Your task to perform on an android device: Open sound settings Image 0: 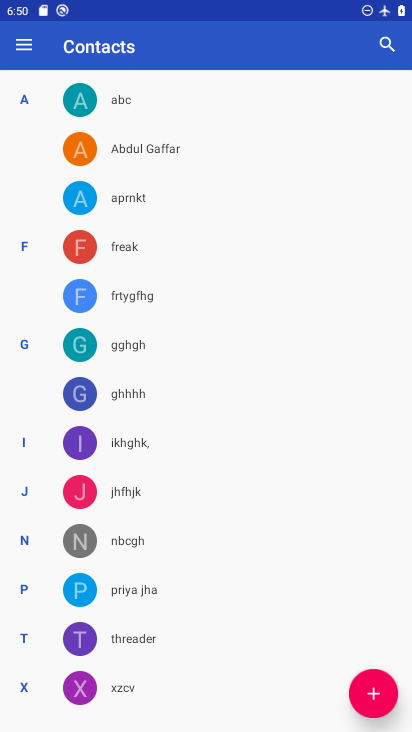
Step 0: press home button
Your task to perform on an android device: Open sound settings Image 1: 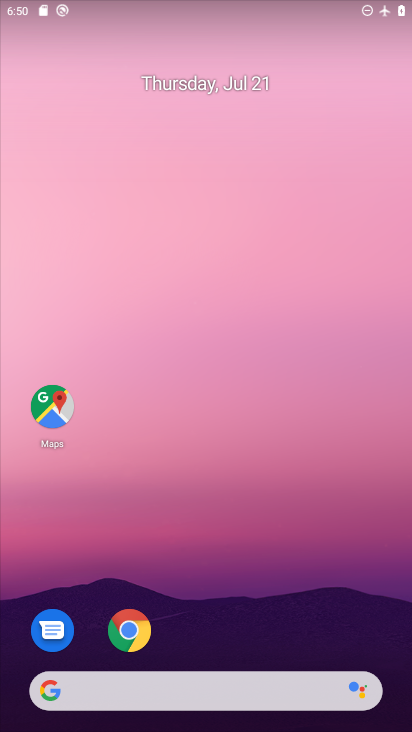
Step 1: drag from (168, 695) to (174, 172)
Your task to perform on an android device: Open sound settings Image 2: 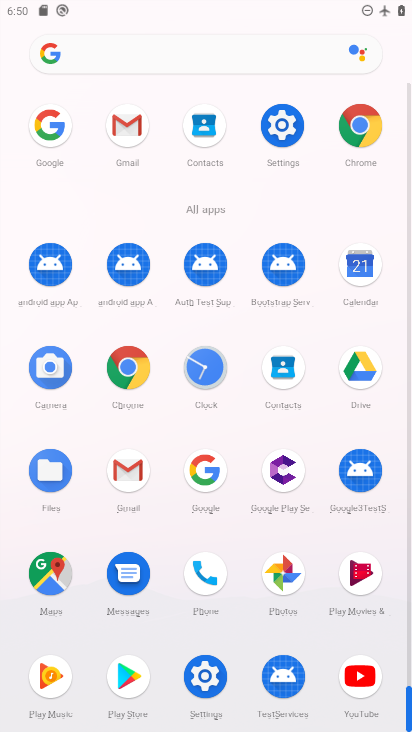
Step 2: click (283, 123)
Your task to perform on an android device: Open sound settings Image 3: 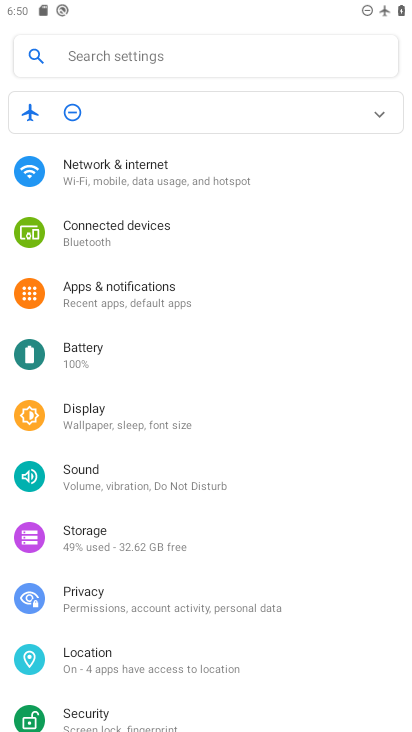
Step 3: click (82, 473)
Your task to perform on an android device: Open sound settings Image 4: 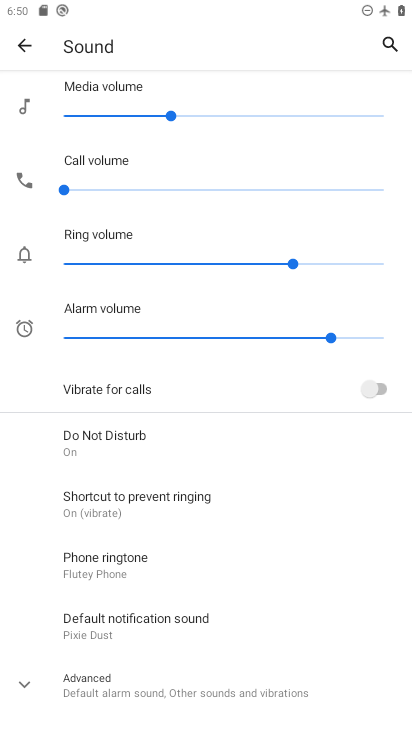
Step 4: task complete